Your task to perform on an android device: turn on location history Image 0: 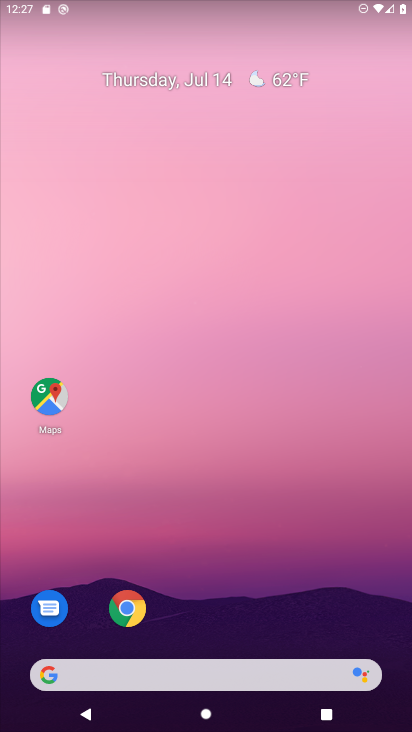
Step 0: drag from (242, 726) to (242, 103)
Your task to perform on an android device: turn on location history Image 1: 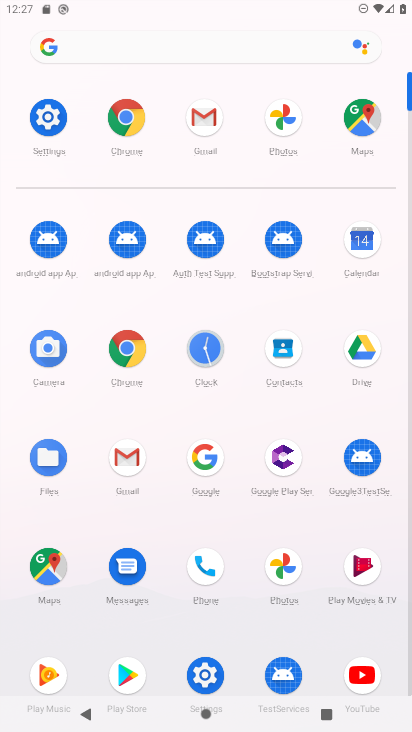
Step 1: click (50, 117)
Your task to perform on an android device: turn on location history Image 2: 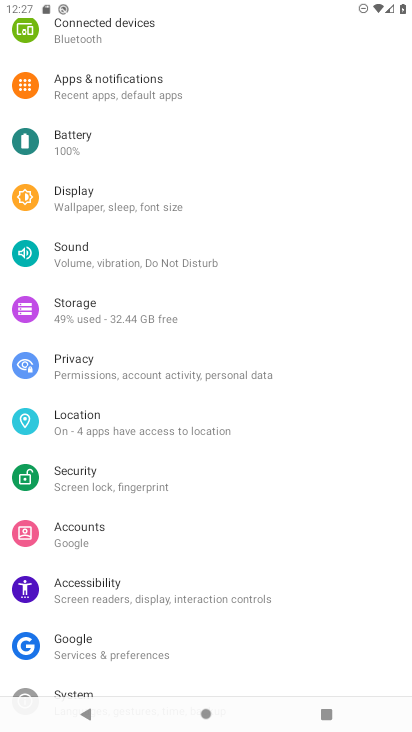
Step 2: click (94, 413)
Your task to perform on an android device: turn on location history Image 3: 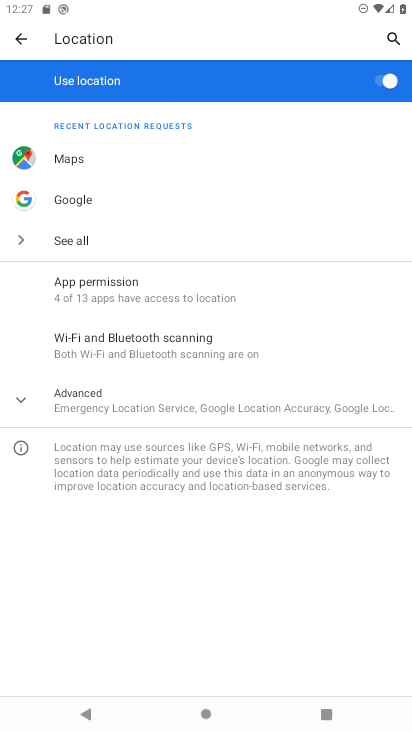
Step 3: click (93, 401)
Your task to perform on an android device: turn on location history Image 4: 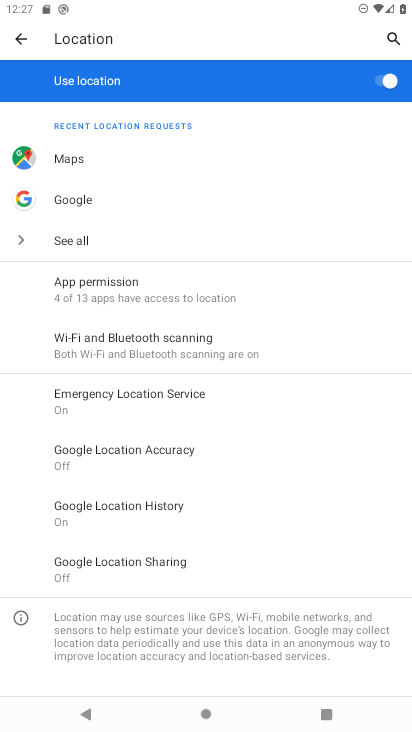
Step 4: click (159, 505)
Your task to perform on an android device: turn on location history Image 5: 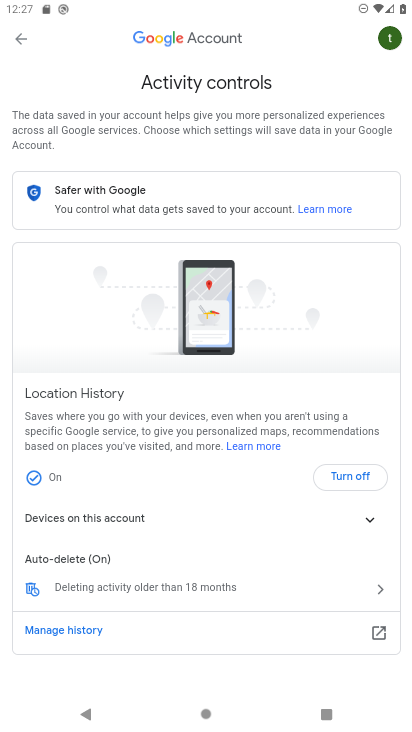
Step 5: task complete